Your task to perform on an android device: Open Google Maps Image 0: 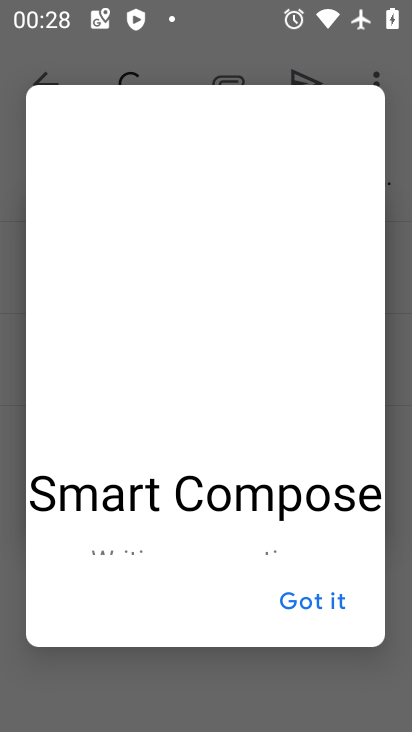
Step 0: press home button
Your task to perform on an android device: Open Google Maps Image 1: 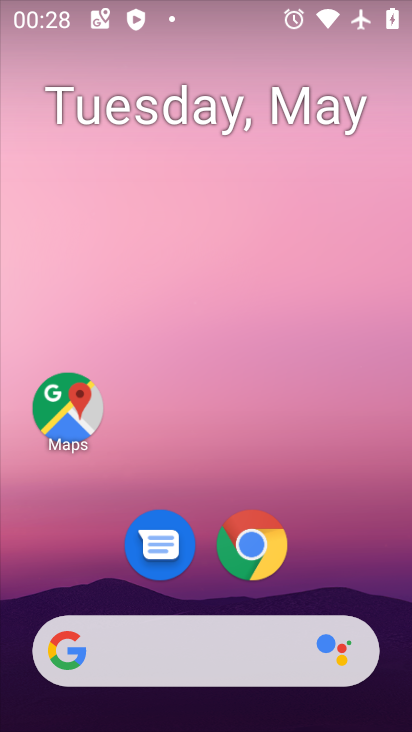
Step 1: drag from (364, 541) to (404, 360)
Your task to perform on an android device: Open Google Maps Image 2: 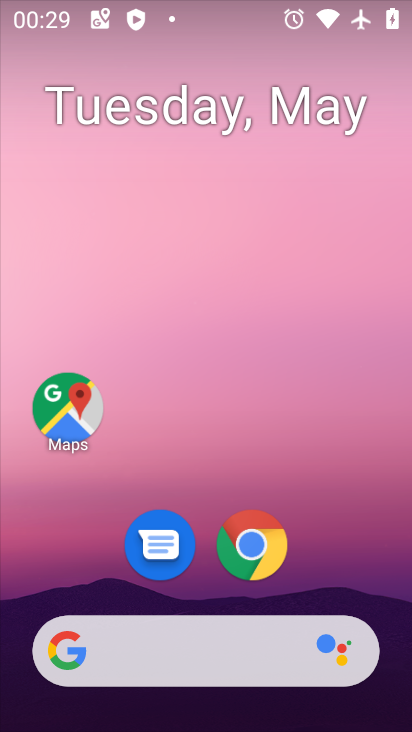
Step 2: drag from (349, 598) to (408, 194)
Your task to perform on an android device: Open Google Maps Image 3: 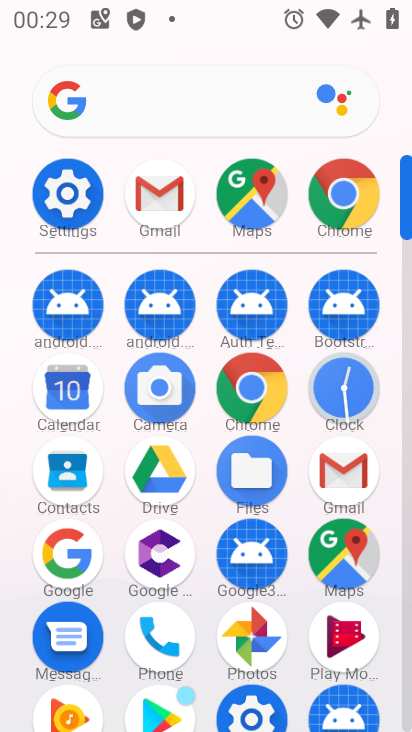
Step 3: click (345, 538)
Your task to perform on an android device: Open Google Maps Image 4: 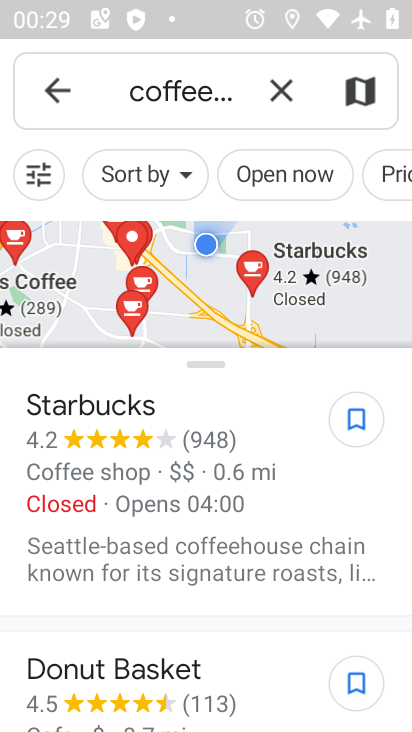
Step 4: click (57, 76)
Your task to perform on an android device: Open Google Maps Image 5: 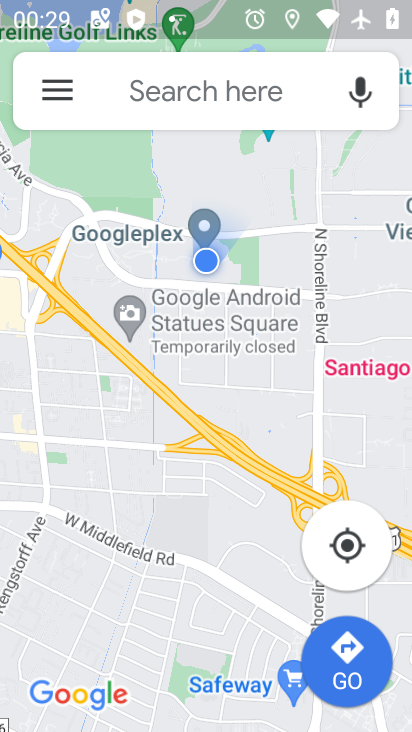
Step 5: task complete